Your task to perform on an android device: Search for logitech g pro on walmart, select the first entry, and add it to the cart. Image 0: 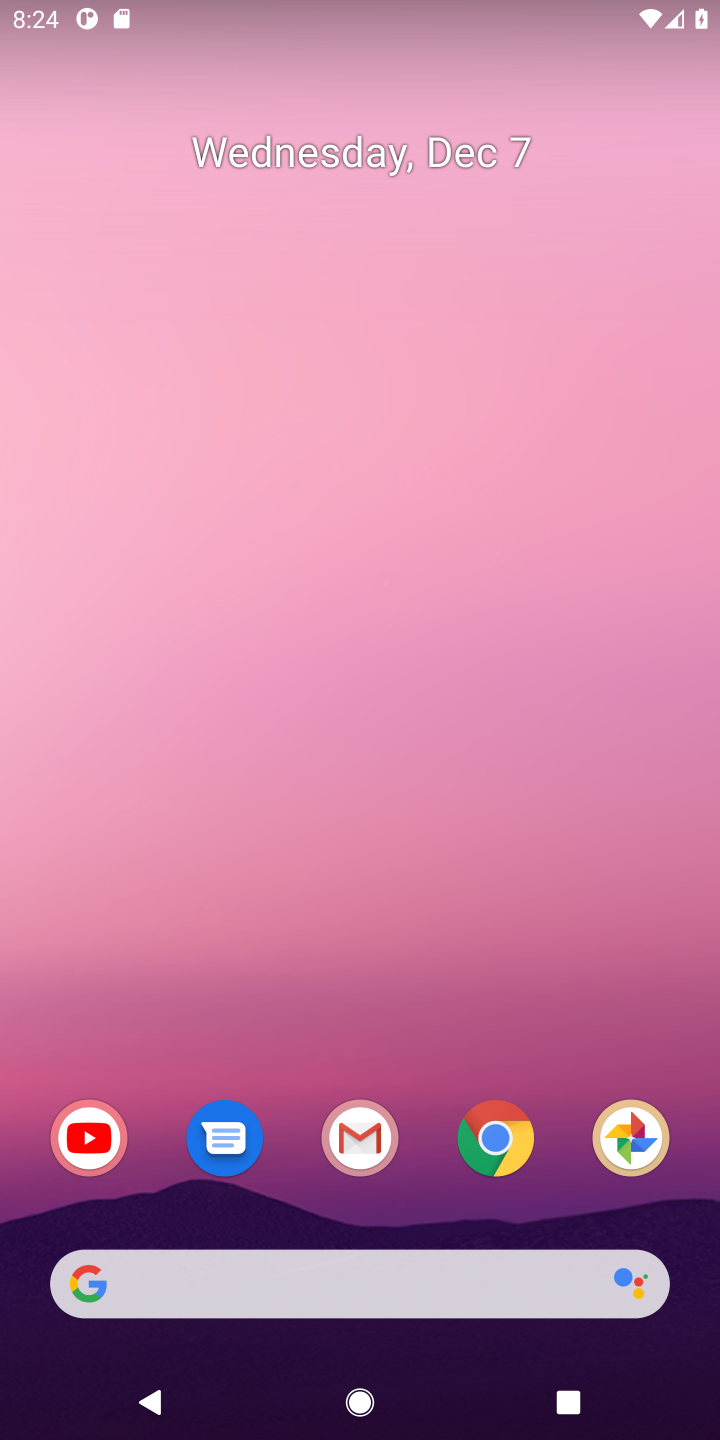
Step 0: click (145, 1279)
Your task to perform on an android device: Search for logitech g pro on walmart, select the first entry, and add it to the cart. Image 1: 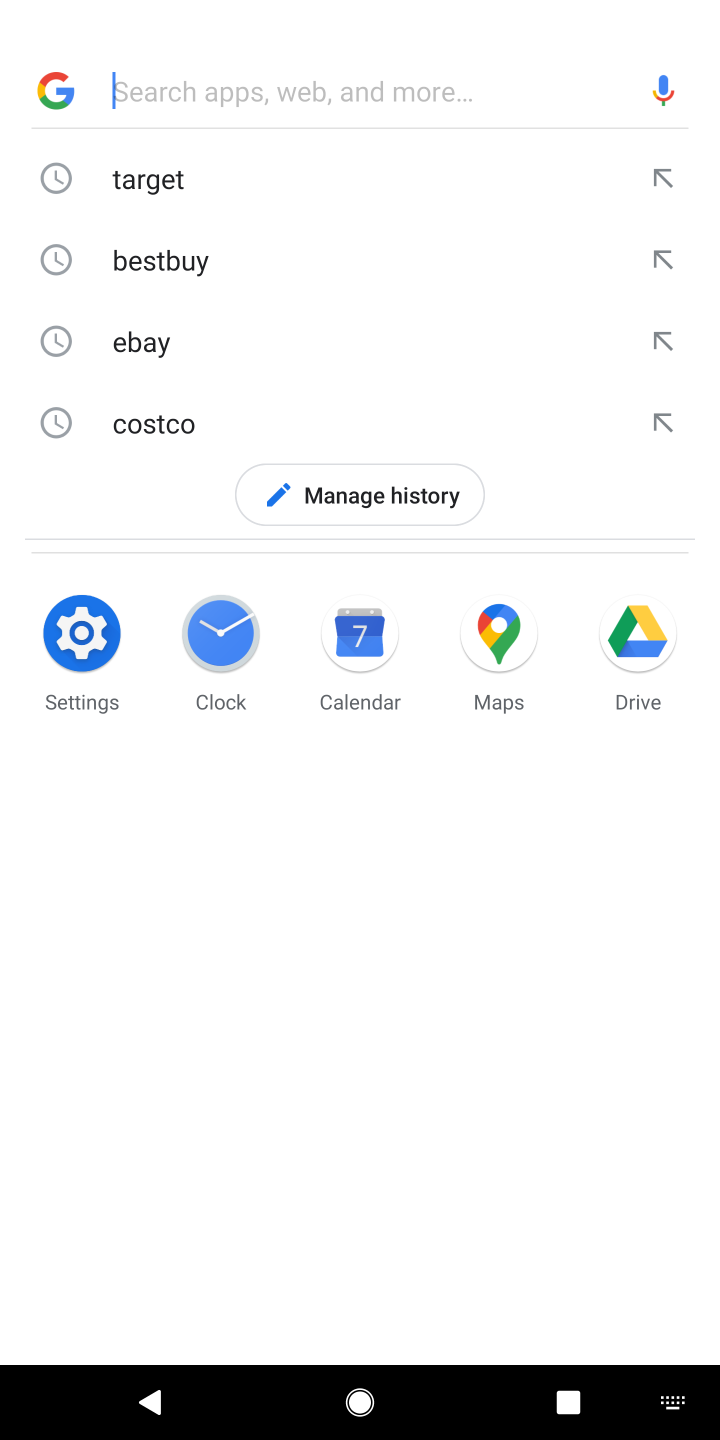
Step 1: press enter
Your task to perform on an android device: Search for logitech g pro on walmart, select the first entry, and add it to the cart. Image 2: 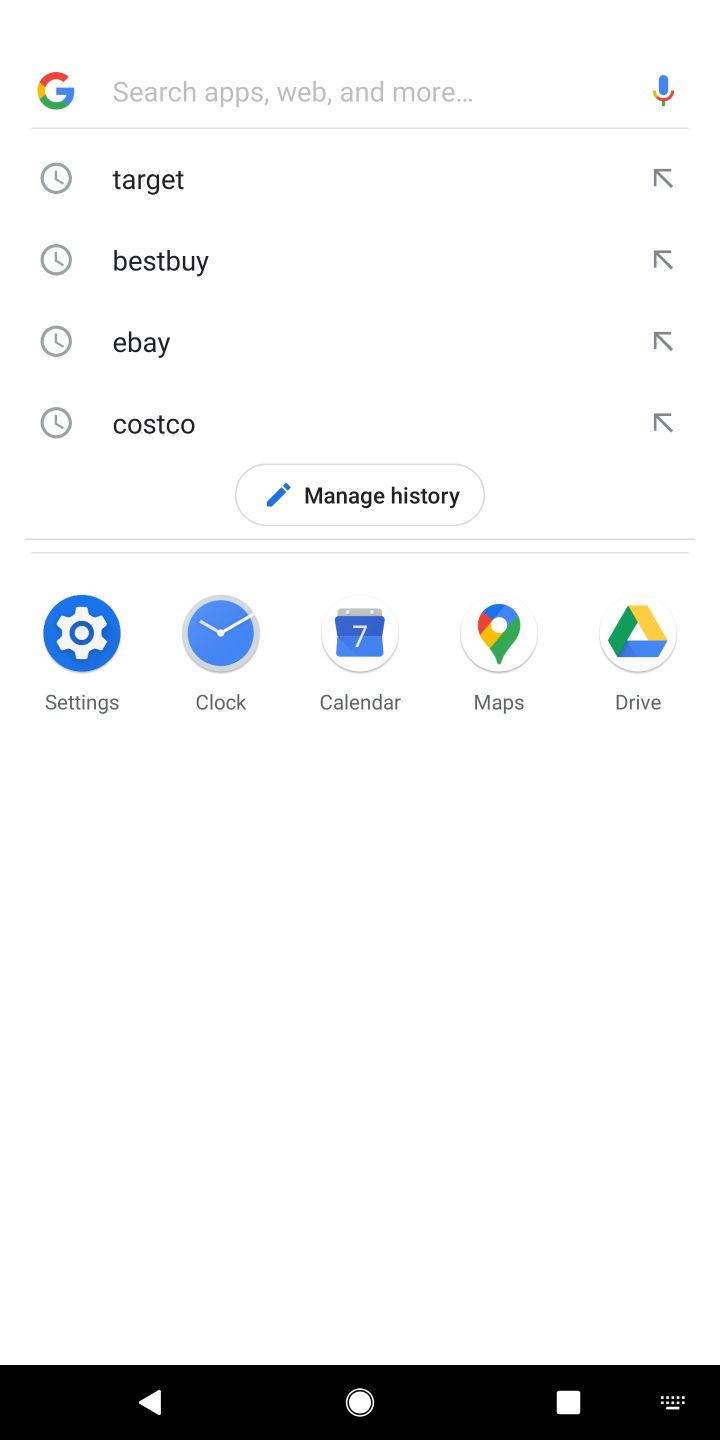
Step 2: type "walmart"
Your task to perform on an android device: Search for logitech g pro on walmart, select the first entry, and add it to the cart. Image 3: 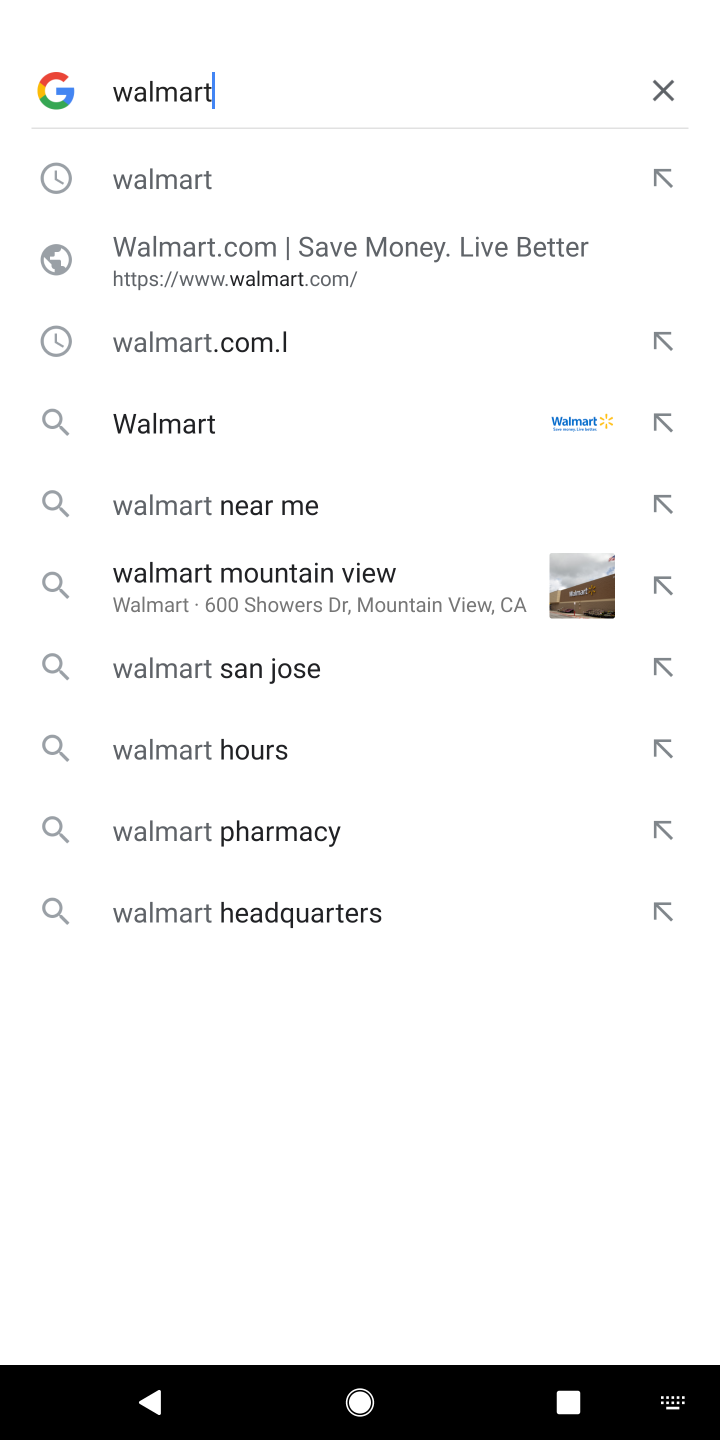
Step 3: press enter
Your task to perform on an android device: Search for logitech g pro on walmart, select the first entry, and add it to the cart. Image 4: 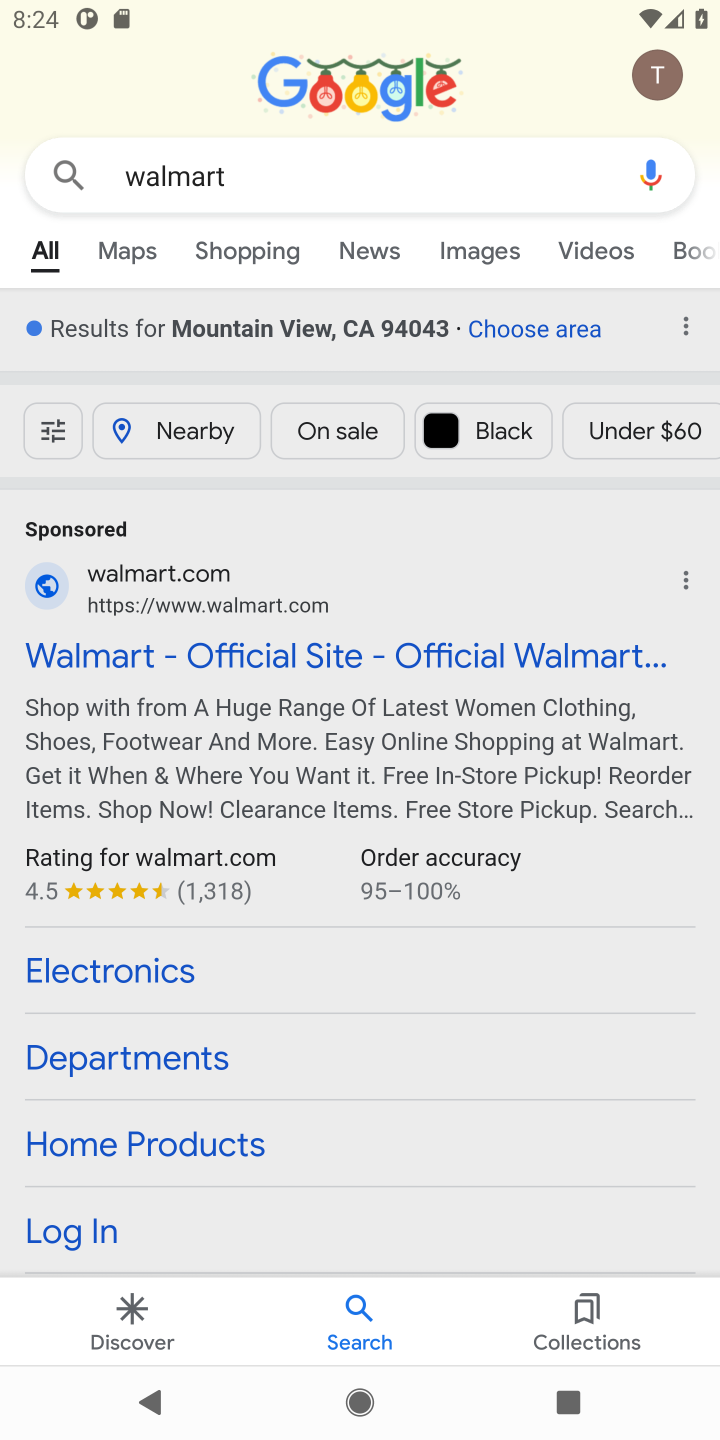
Step 4: click (337, 644)
Your task to perform on an android device: Search for logitech g pro on walmart, select the first entry, and add it to the cart. Image 5: 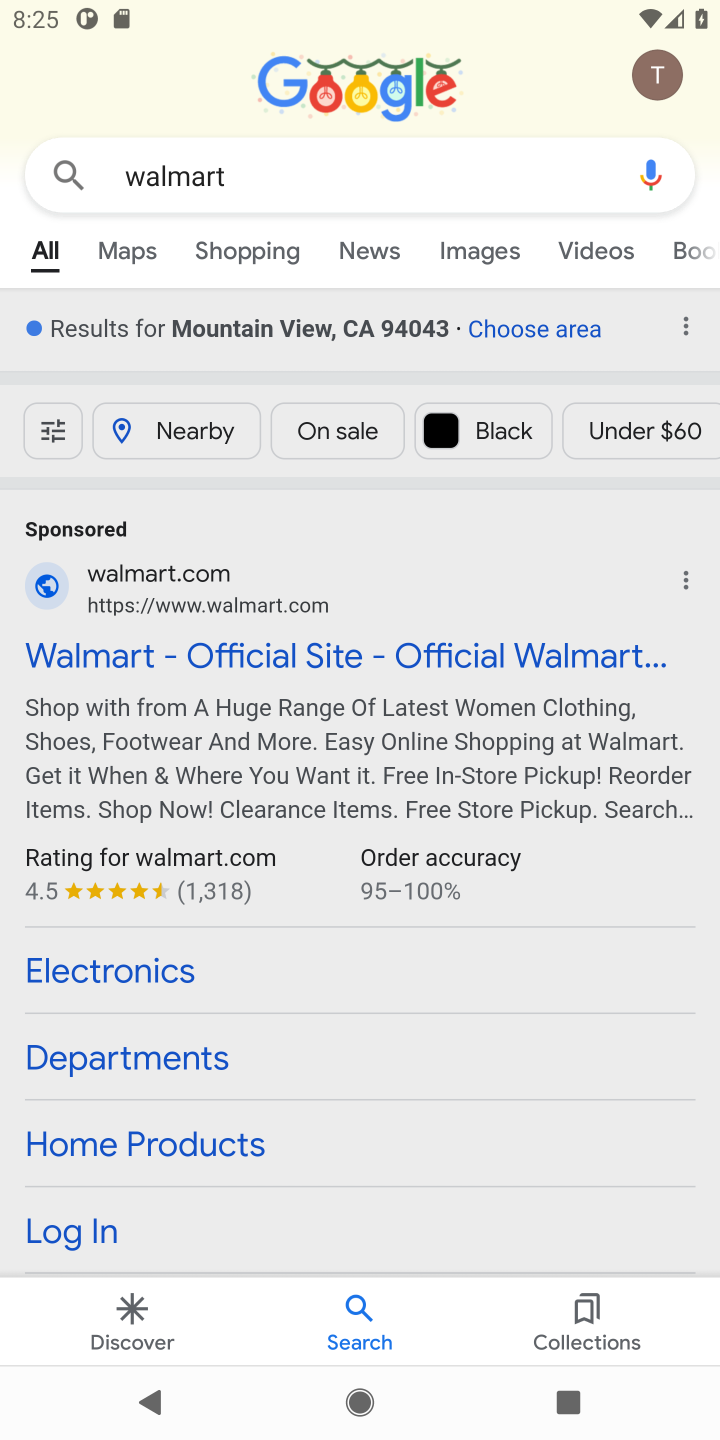
Step 5: click (285, 660)
Your task to perform on an android device: Search for logitech g pro on walmart, select the first entry, and add it to the cart. Image 6: 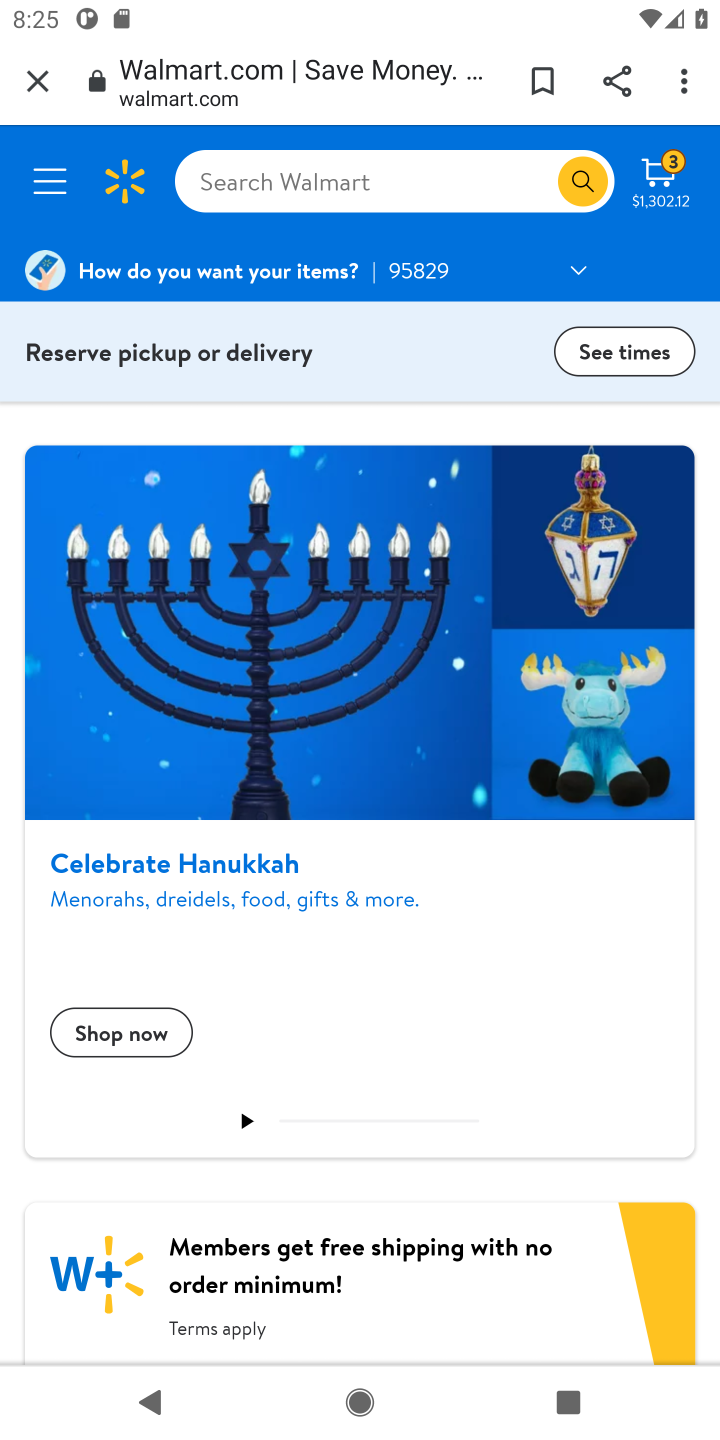
Step 6: drag from (471, 1237) to (464, 451)
Your task to perform on an android device: Search for logitech g pro on walmart, select the first entry, and add it to the cart. Image 7: 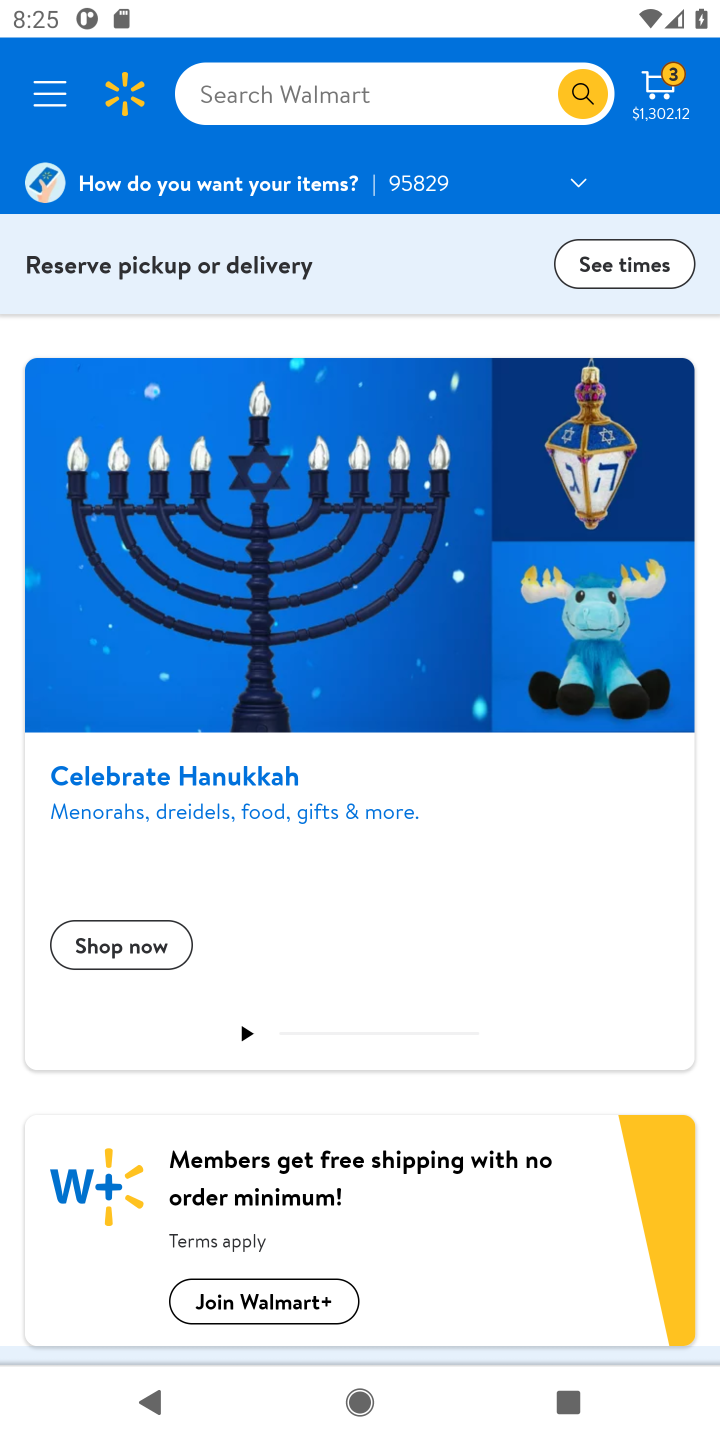
Step 7: drag from (447, 1113) to (482, 387)
Your task to perform on an android device: Search for logitech g pro on walmart, select the first entry, and add it to the cart. Image 8: 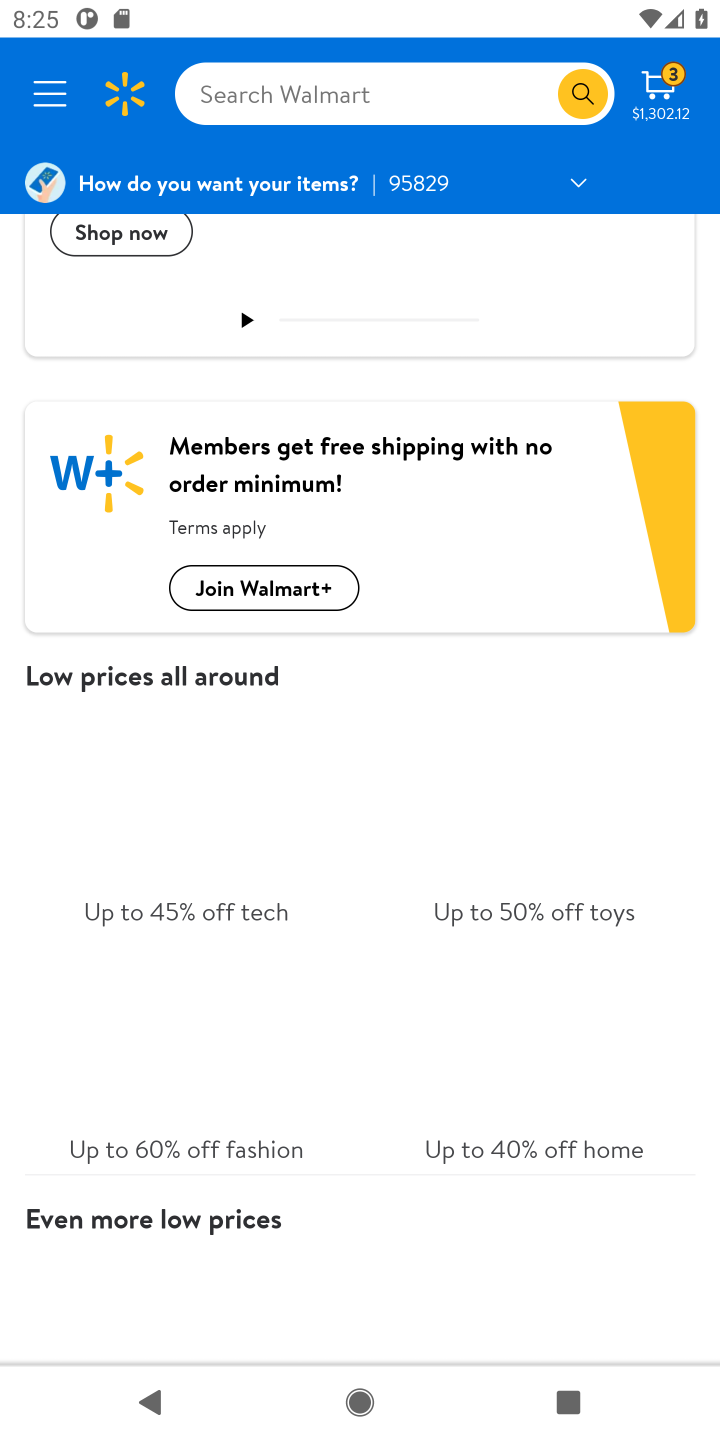
Step 8: drag from (475, 292) to (511, 1115)
Your task to perform on an android device: Search for logitech g pro on walmart, select the first entry, and add it to the cart. Image 9: 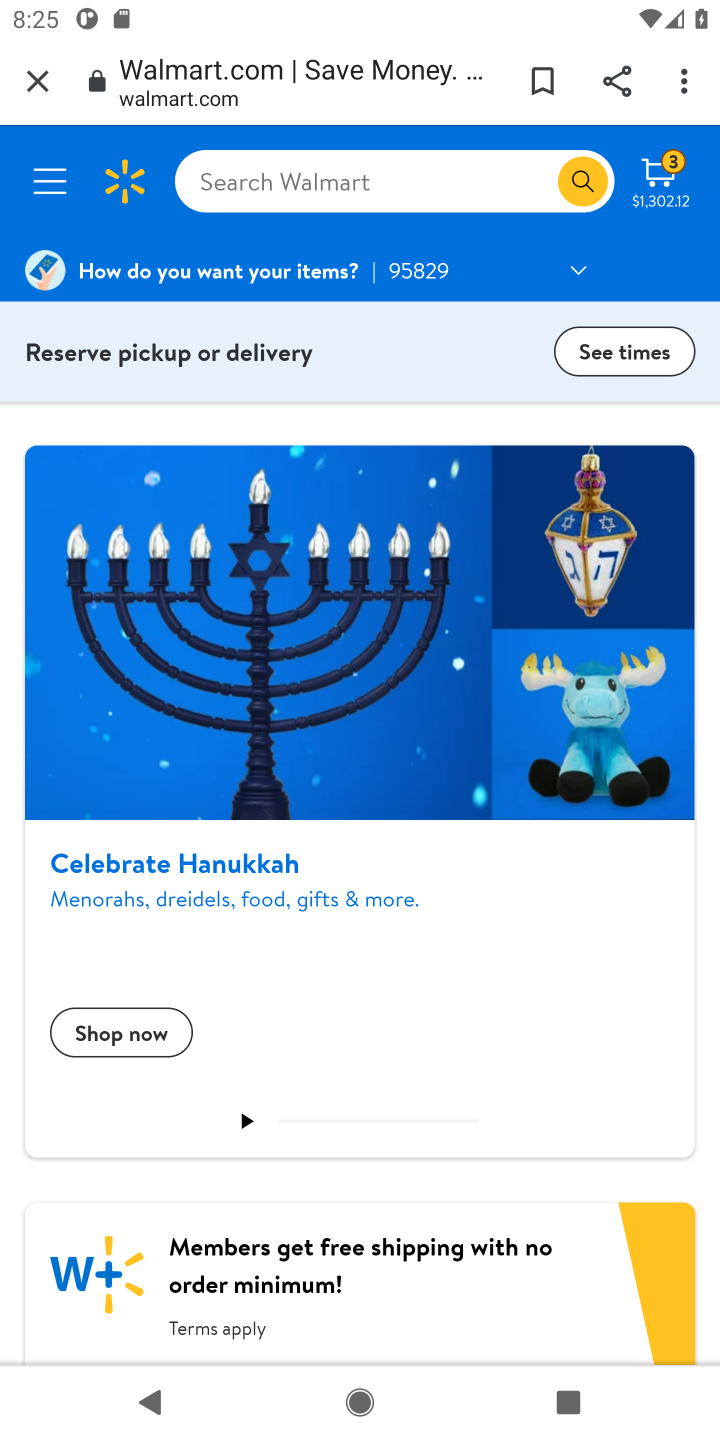
Step 9: click (281, 168)
Your task to perform on an android device: Search for logitech g pro on walmart, select the first entry, and add it to the cart. Image 10: 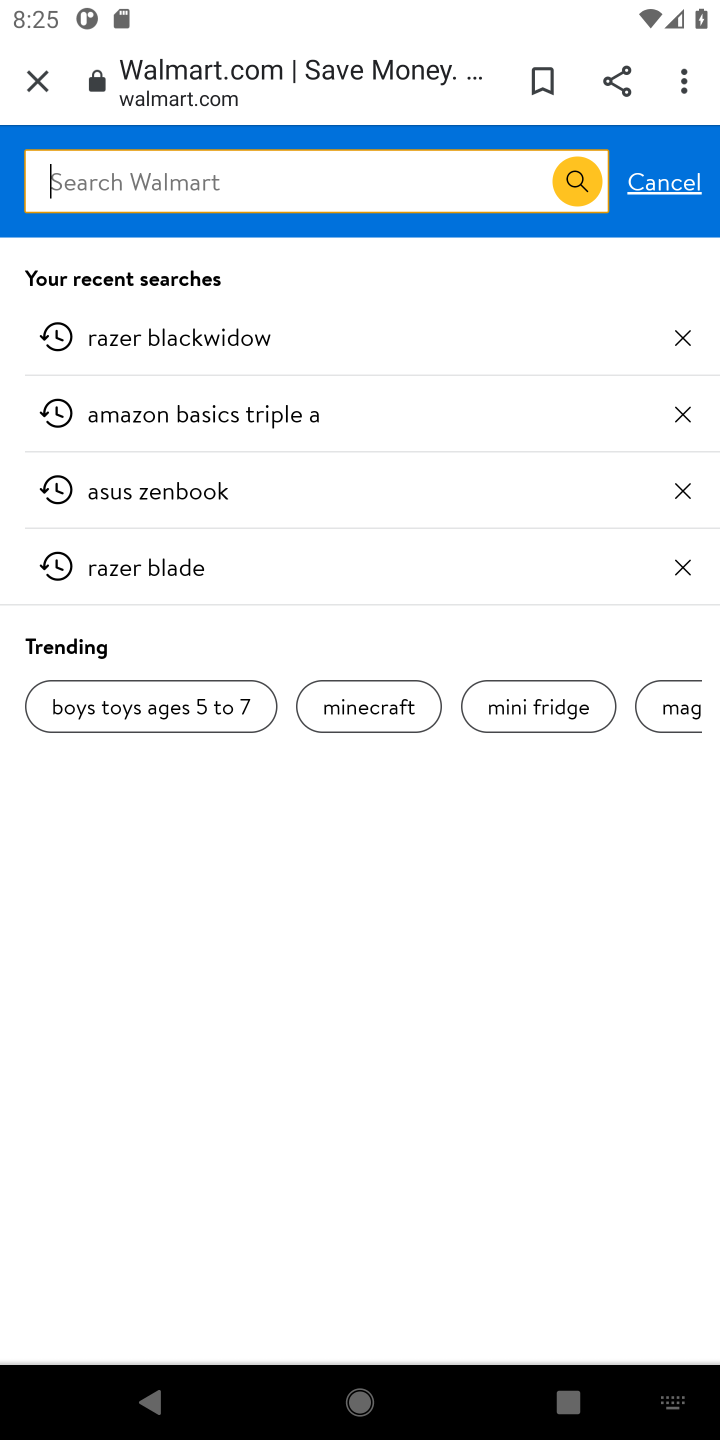
Step 10: press enter
Your task to perform on an android device: Search for logitech g pro on walmart, select the first entry, and add it to the cart. Image 11: 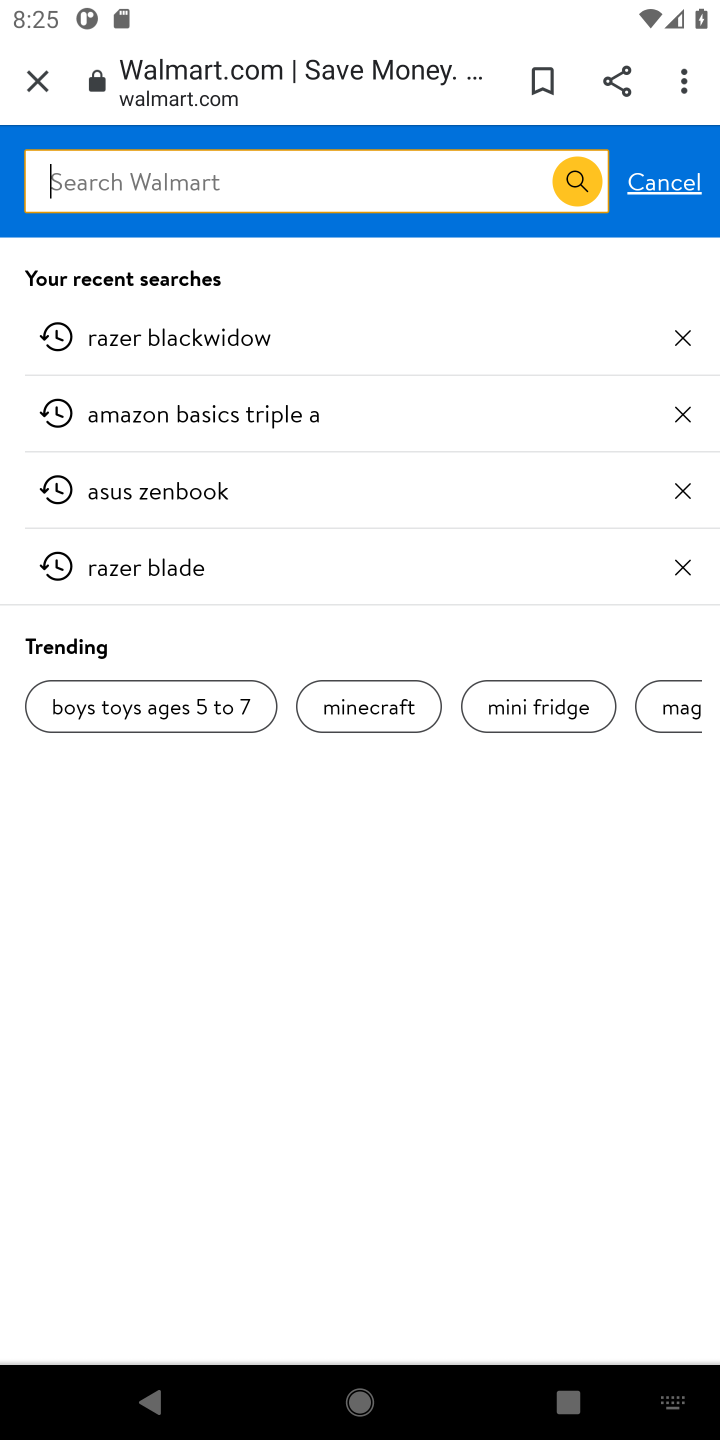
Step 11: type "logitech g pro"
Your task to perform on an android device: Search for logitech g pro on walmart, select the first entry, and add it to the cart. Image 12: 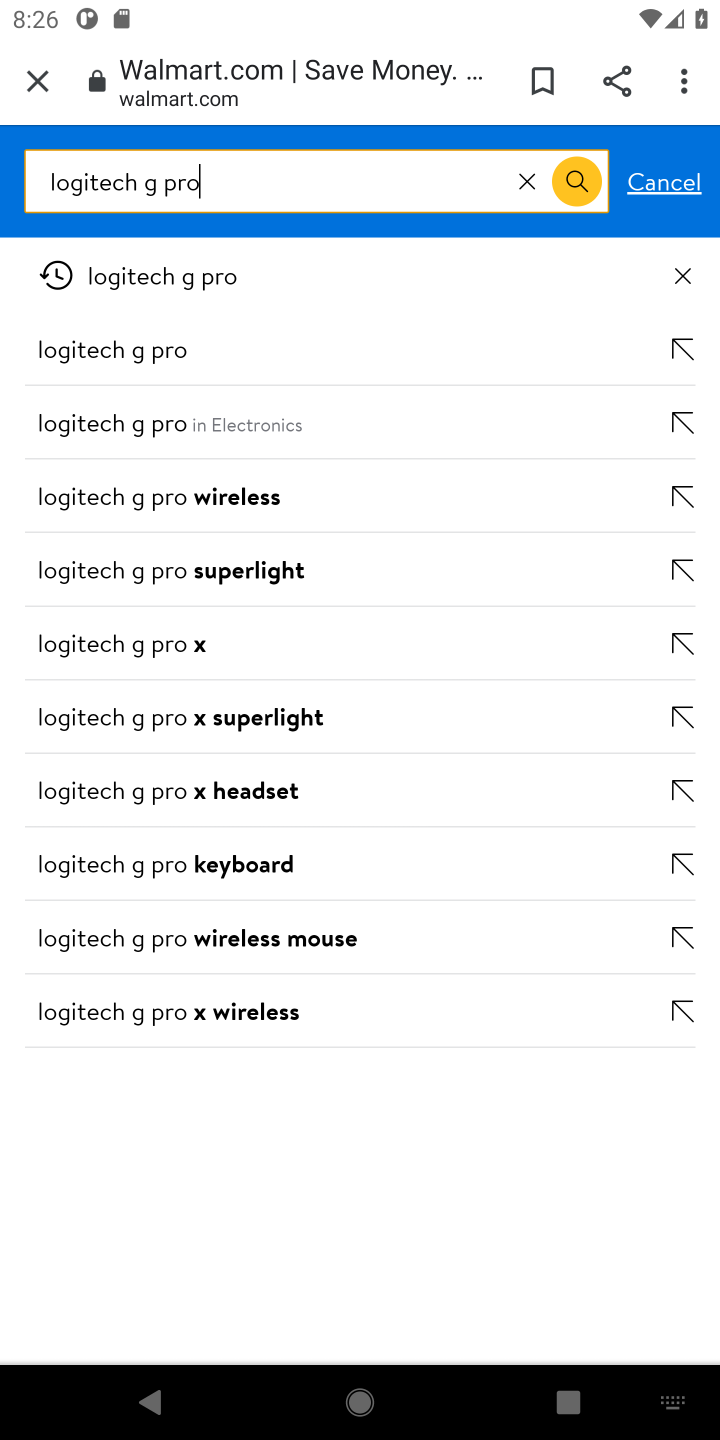
Step 12: press enter
Your task to perform on an android device: Search for logitech g pro on walmart, select the first entry, and add it to the cart. Image 13: 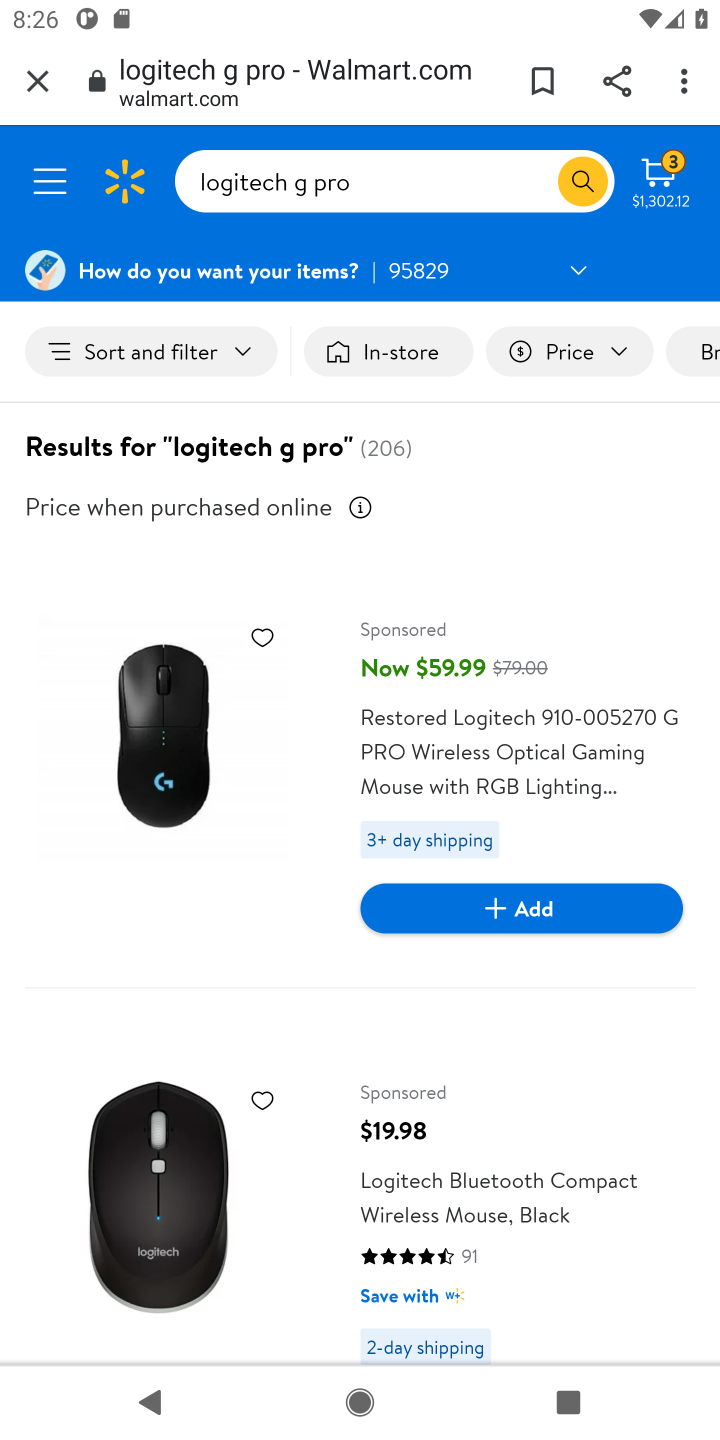
Step 13: click (532, 895)
Your task to perform on an android device: Search for logitech g pro on walmart, select the first entry, and add it to the cart. Image 14: 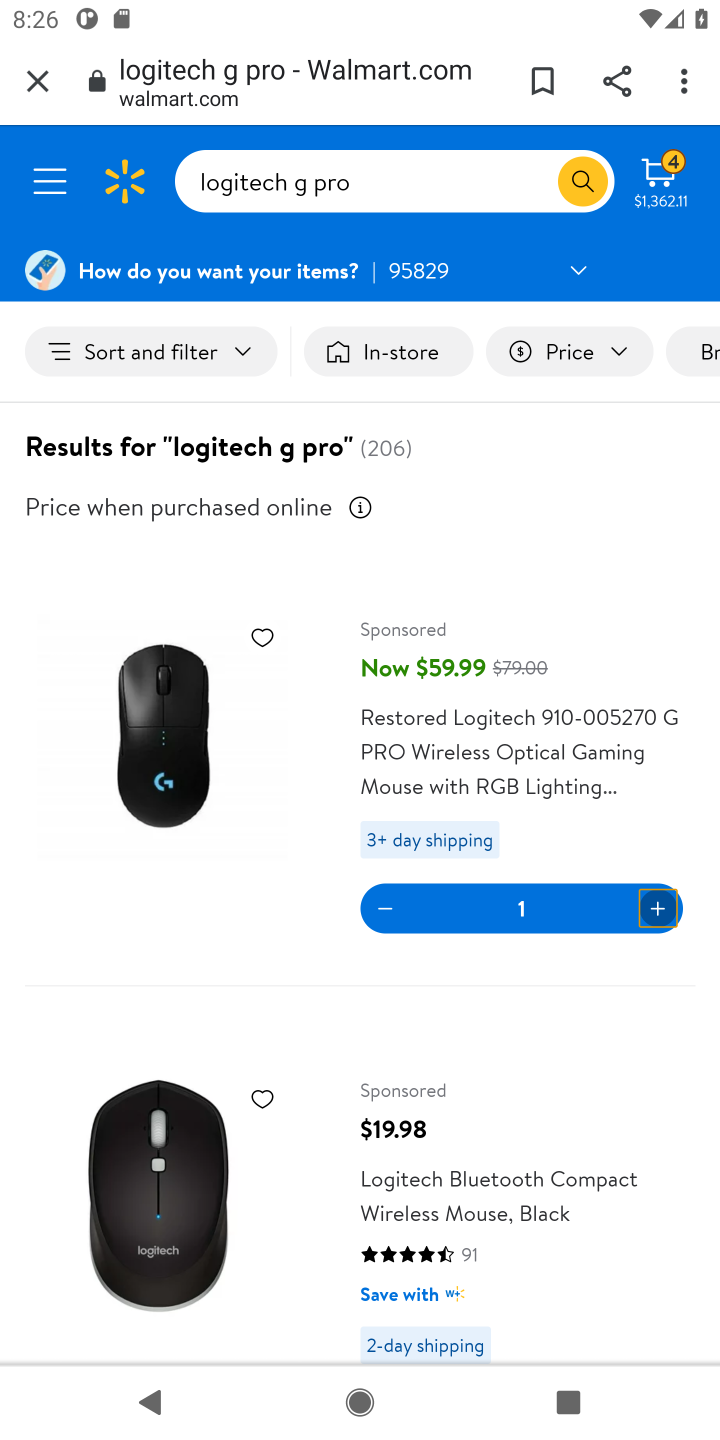
Step 14: task complete